Your task to perform on an android device: remove spam from my inbox in the gmail app Image 0: 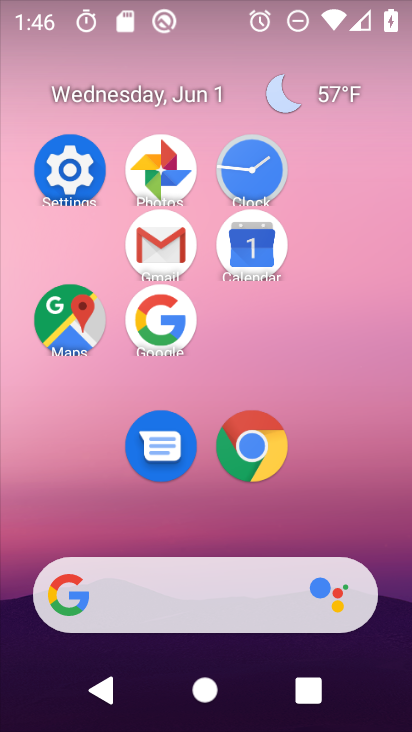
Step 0: click (177, 243)
Your task to perform on an android device: remove spam from my inbox in the gmail app Image 1: 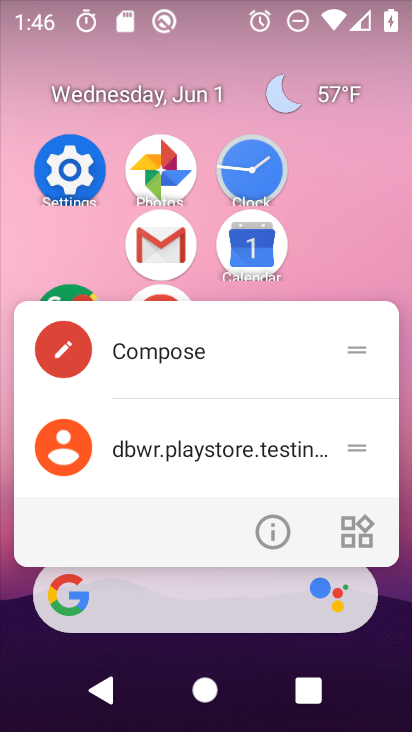
Step 1: click (177, 243)
Your task to perform on an android device: remove spam from my inbox in the gmail app Image 2: 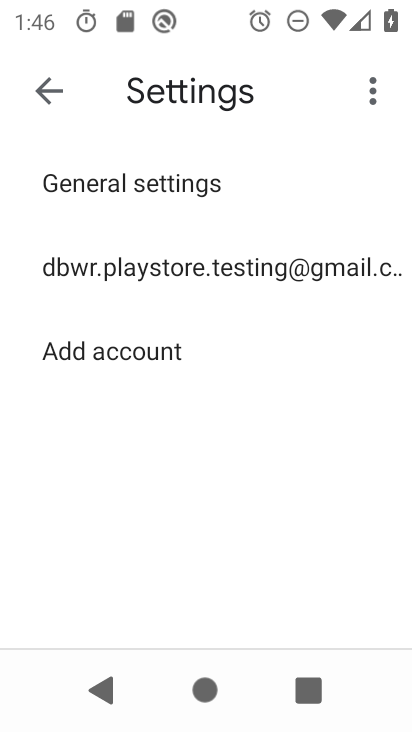
Step 2: click (53, 123)
Your task to perform on an android device: remove spam from my inbox in the gmail app Image 3: 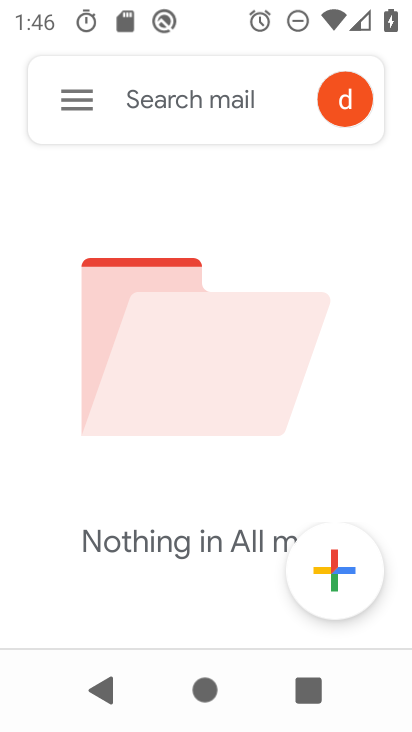
Step 3: click (68, 106)
Your task to perform on an android device: remove spam from my inbox in the gmail app Image 4: 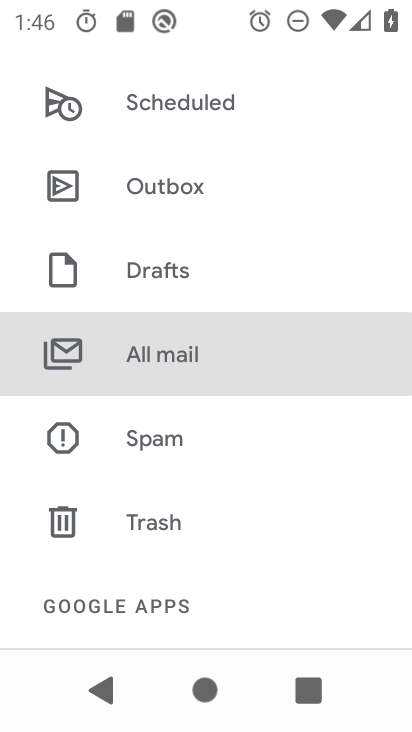
Step 4: click (178, 457)
Your task to perform on an android device: remove spam from my inbox in the gmail app Image 5: 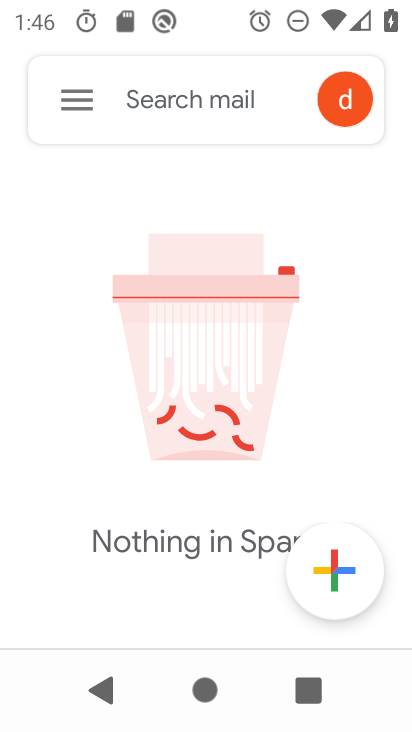
Step 5: task complete